Your task to perform on an android device: find snoozed emails in the gmail app Image 0: 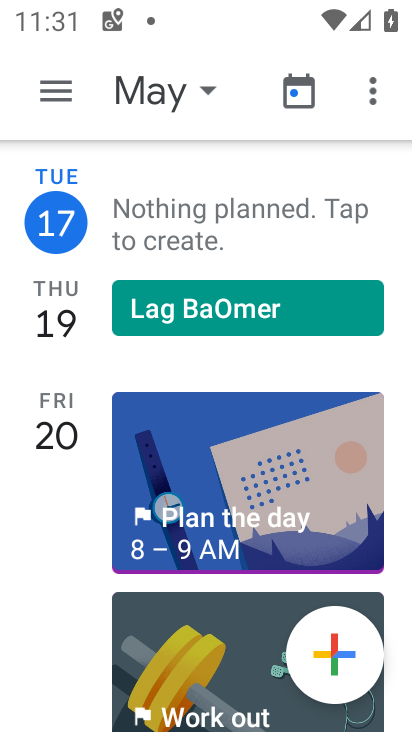
Step 0: click (239, 521)
Your task to perform on an android device: find snoozed emails in the gmail app Image 1: 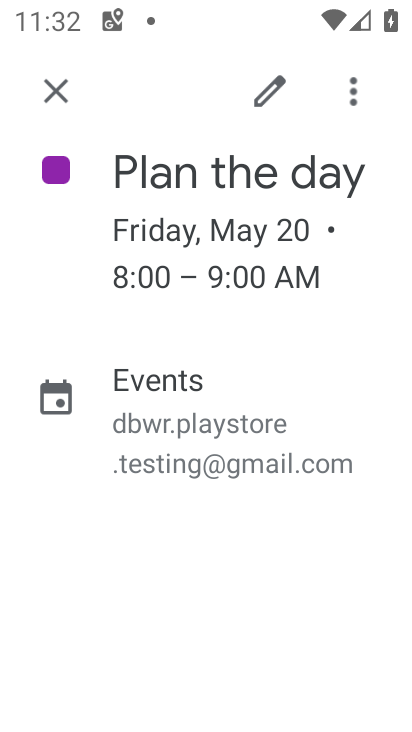
Step 1: press home button
Your task to perform on an android device: find snoozed emails in the gmail app Image 2: 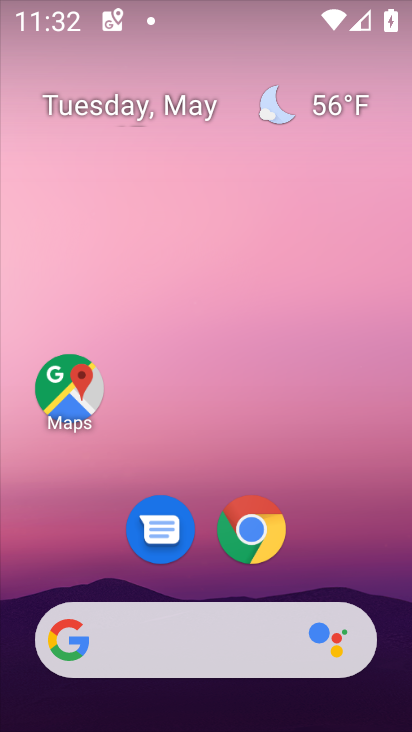
Step 2: drag from (373, 492) to (364, 276)
Your task to perform on an android device: find snoozed emails in the gmail app Image 3: 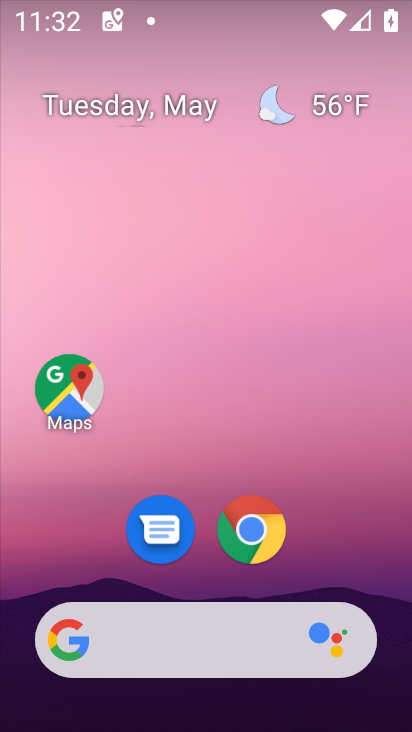
Step 3: drag from (387, 665) to (386, 277)
Your task to perform on an android device: find snoozed emails in the gmail app Image 4: 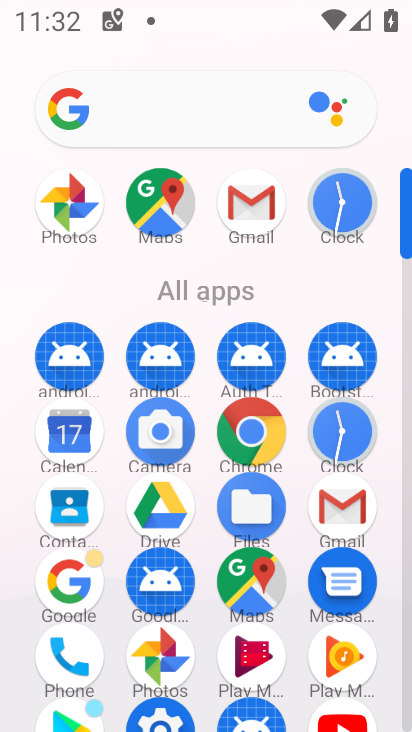
Step 4: click (332, 511)
Your task to perform on an android device: find snoozed emails in the gmail app Image 5: 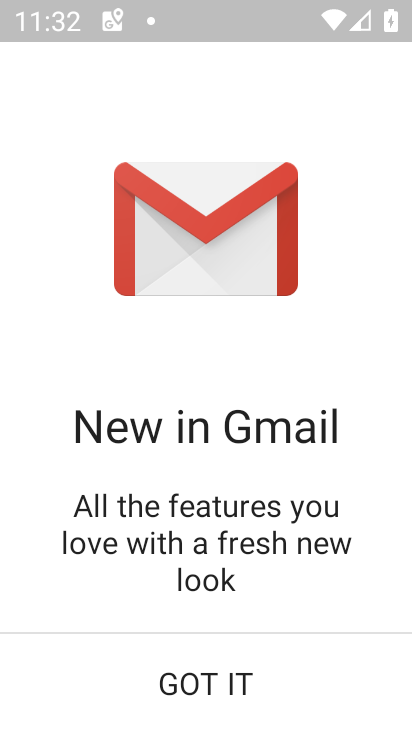
Step 5: click (212, 672)
Your task to perform on an android device: find snoozed emails in the gmail app Image 6: 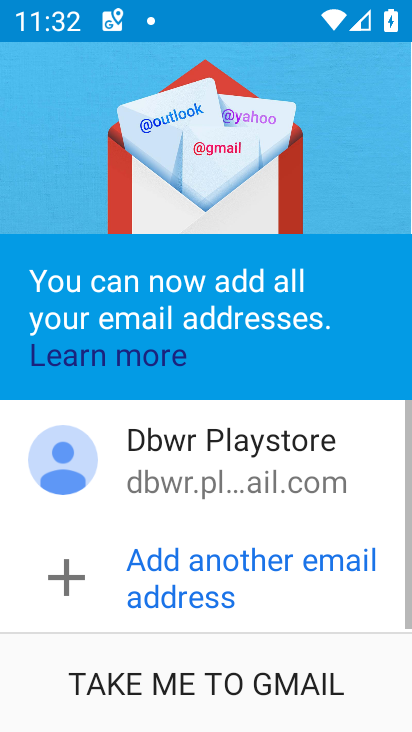
Step 6: click (204, 682)
Your task to perform on an android device: find snoozed emails in the gmail app Image 7: 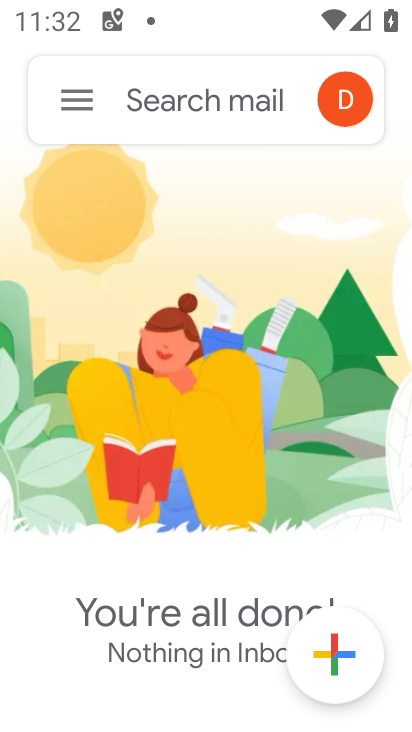
Step 7: click (80, 101)
Your task to perform on an android device: find snoozed emails in the gmail app Image 8: 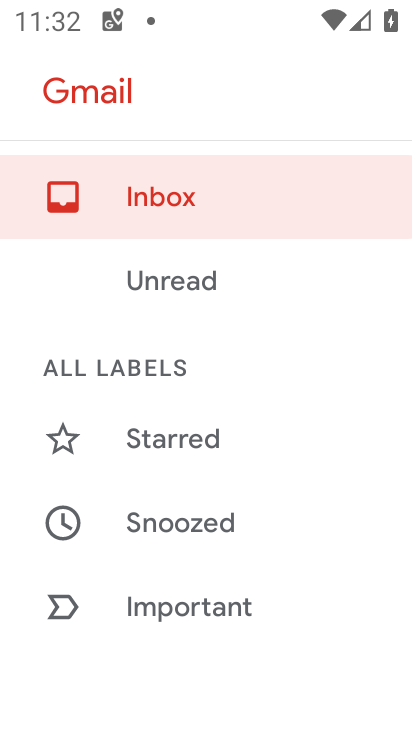
Step 8: drag from (327, 610) to (320, 380)
Your task to perform on an android device: find snoozed emails in the gmail app Image 9: 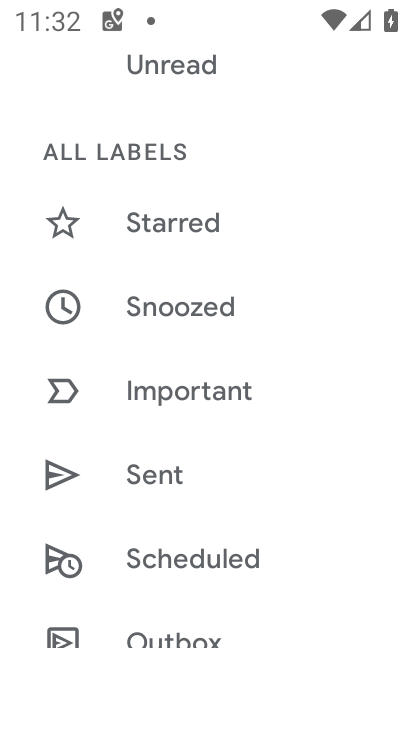
Step 9: drag from (299, 580) to (324, 364)
Your task to perform on an android device: find snoozed emails in the gmail app Image 10: 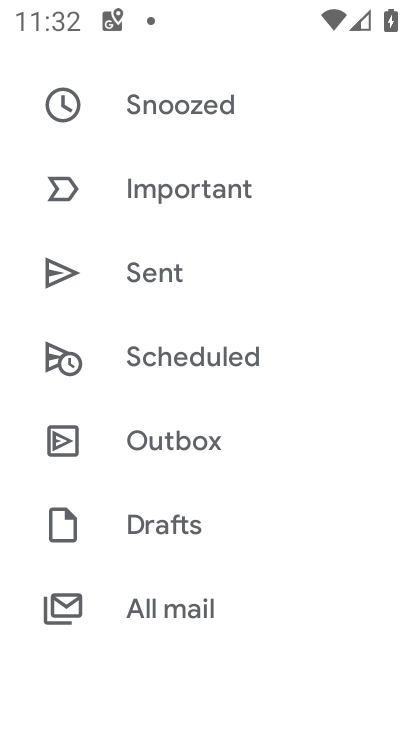
Step 10: click (162, 97)
Your task to perform on an android device: find snoozed emails in the gmail app Image 11: 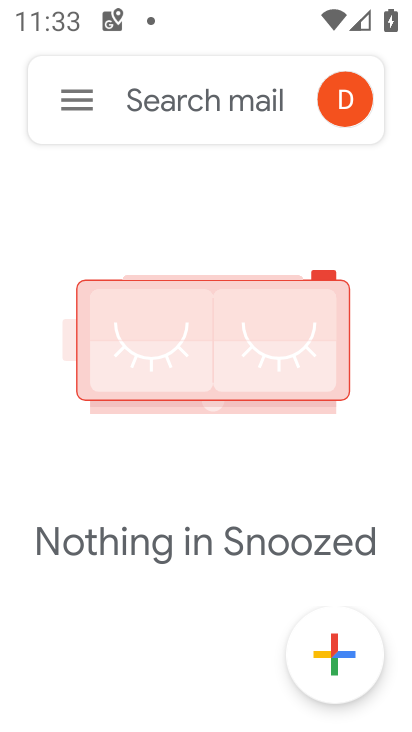
Step 11: task complete